Your task to perform on an android device: What's on my calendar today? Image 0: 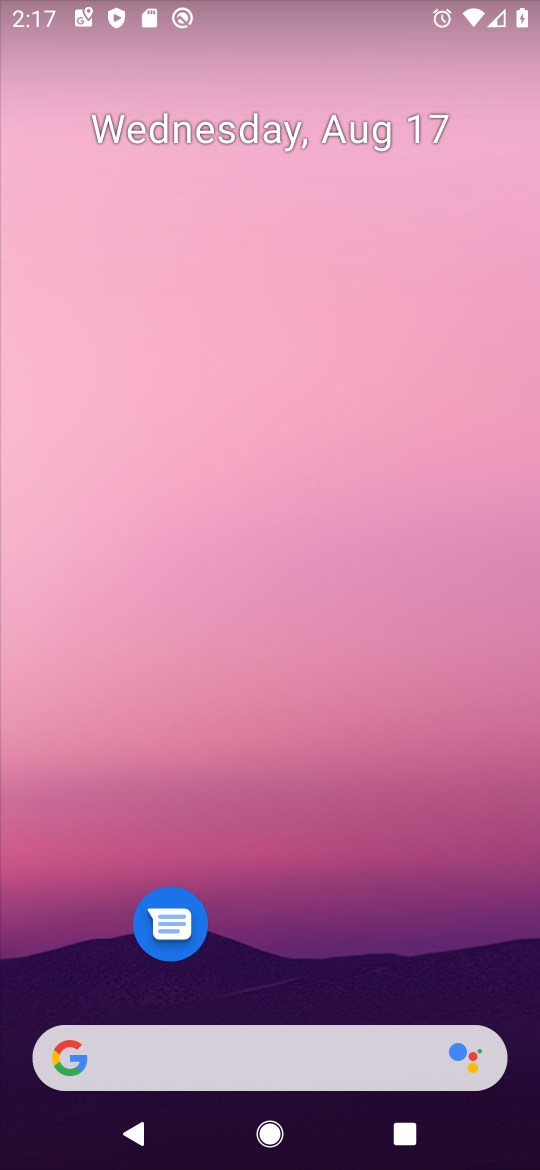
Step 0: drag from (248, 559) to (356, 68)
Your task to perform on an android device: What's on my calendar today? Image 1: 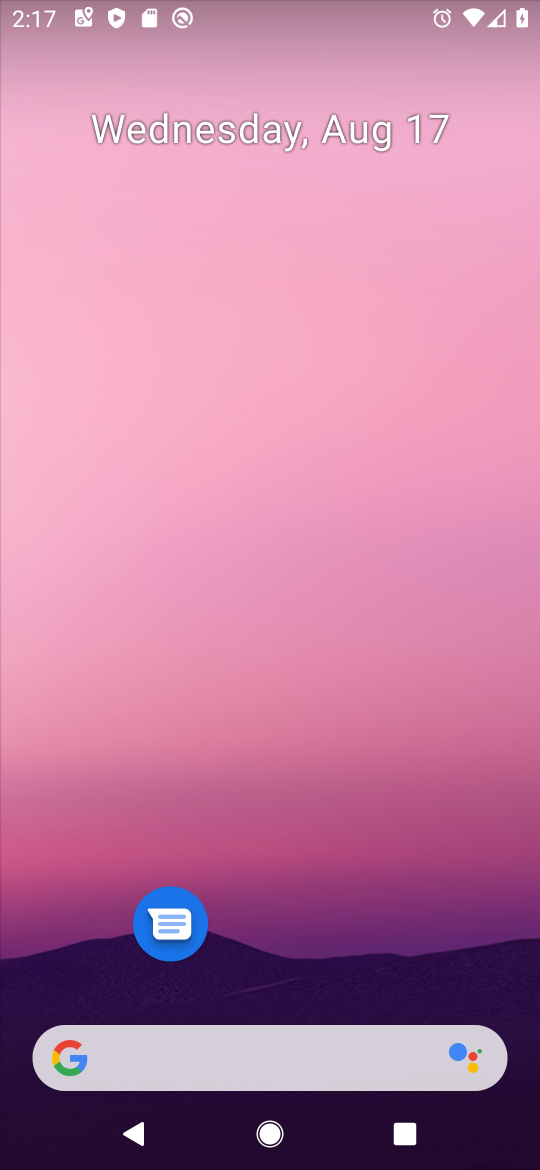
Step 1: drag from (273, 958) to (251, 0)
Your task to perform on an android device: What's on my calendar today? Image 2: 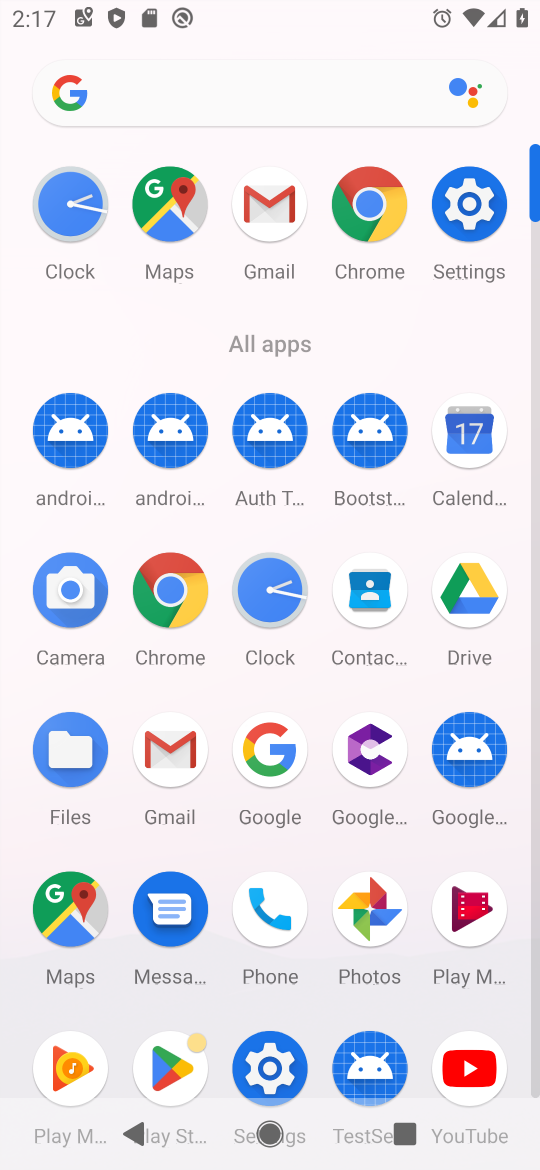
Step 2: click (482, 443)
Your task to perform on an android device: What's on my calendar today? Image 3: 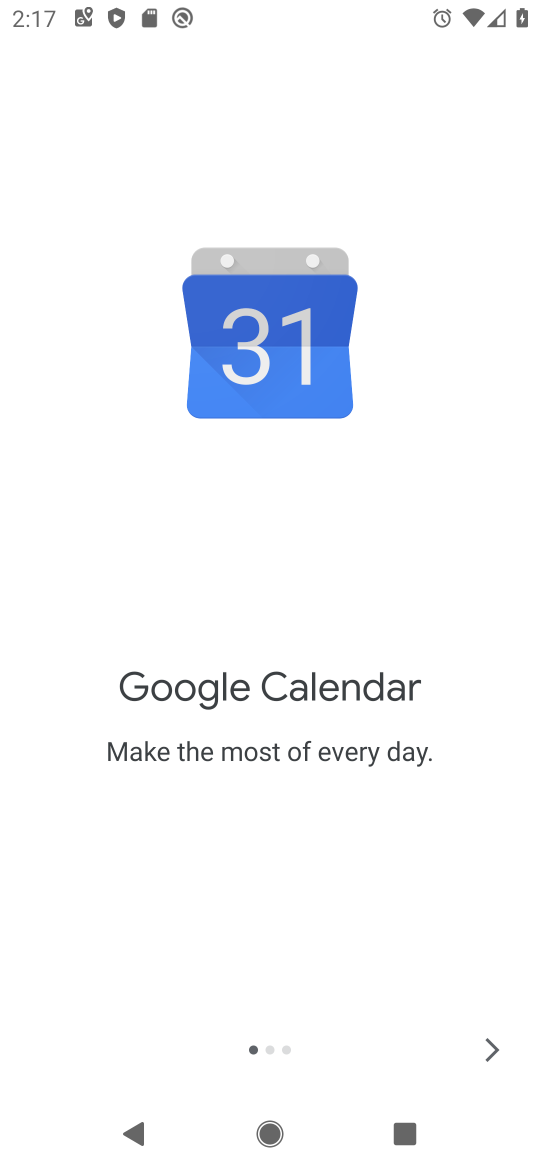
Step 3: click (482, 1038)
Your task to perform on an android device: What's on my calendar today? Image 4: 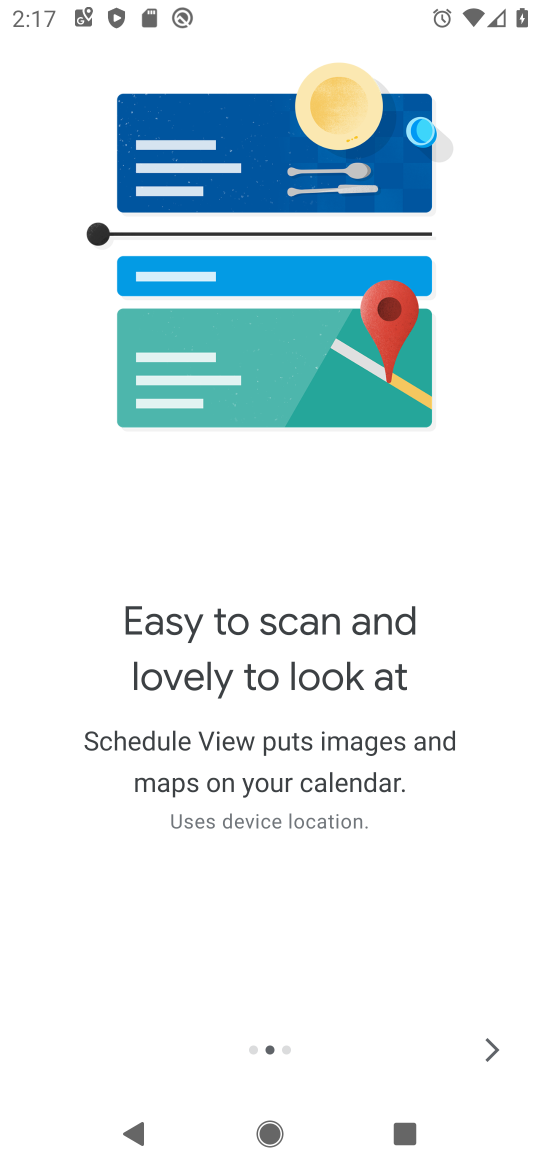
Step 4: click (495, 1032)
Your task to perform on an android device: What's on my calendar today? Image 5: 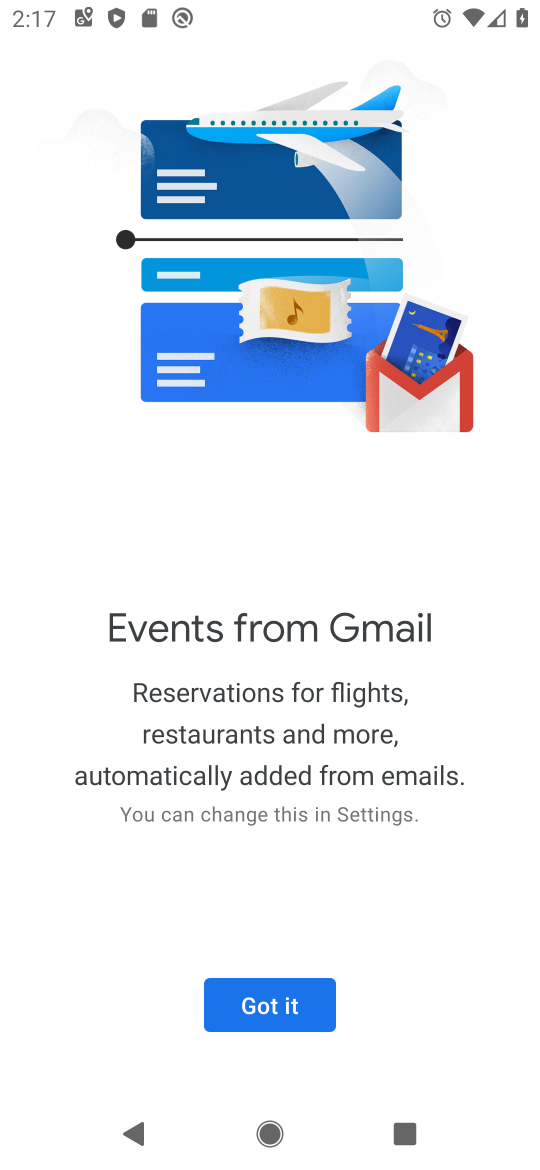
Step 5: click (270, 1004)
Your task to perform on an android device: What's on my calendar today? Image 6: 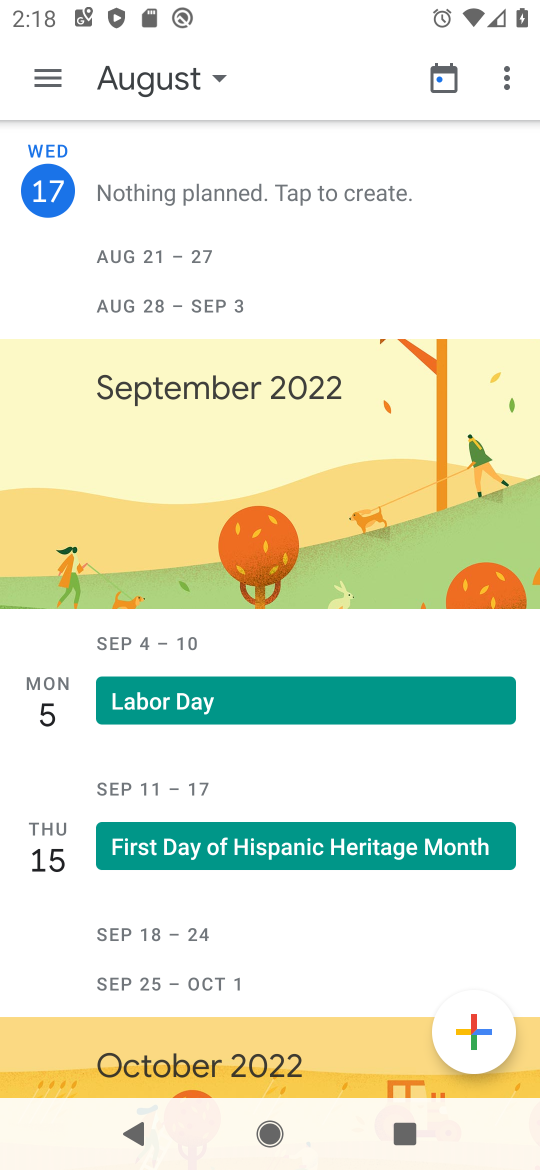
Step 6: click (10, 213)
Your task to perform on an android device: What's on my calendar today? Image 7: 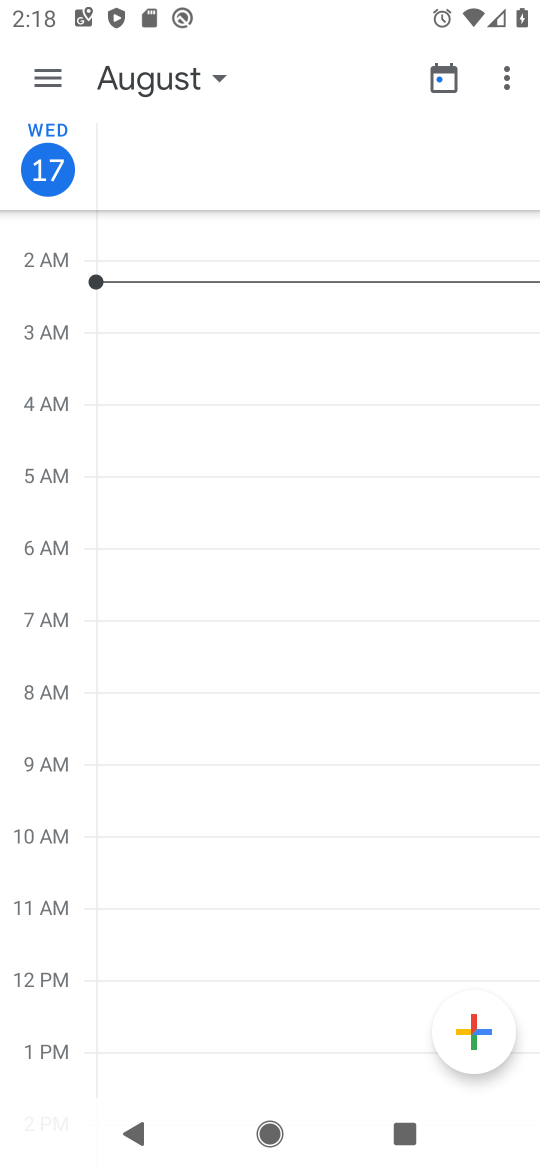
Step 7: task complete